Your task to perform on an android device: Check the latest 3D printers on Target. Image 0: 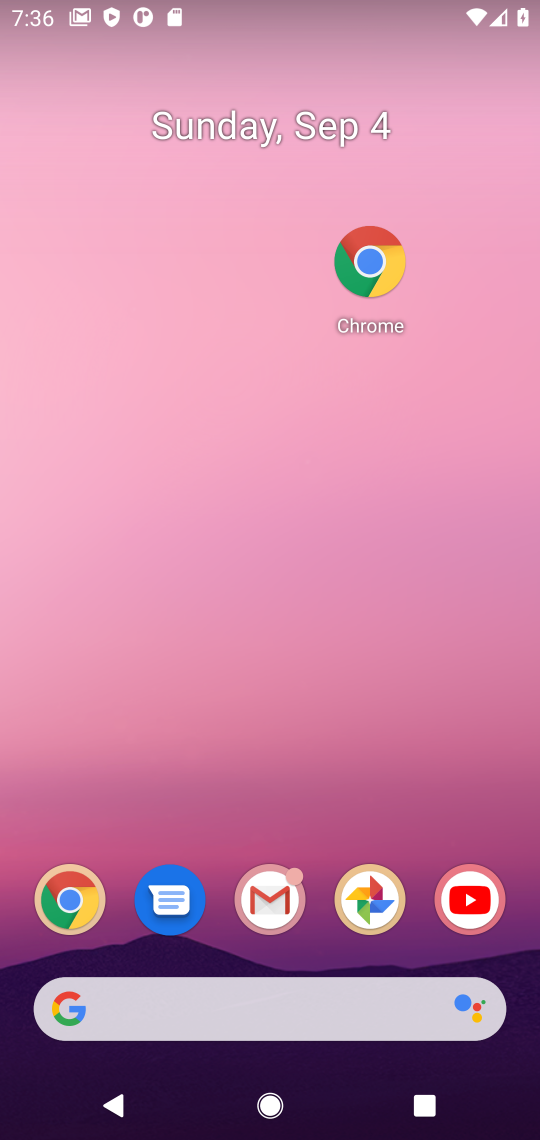
Step 0: drag from (303, 944) to (365, 45)
Your task to perform on an android device: Check the latest 3D printers on Target. Image 1: 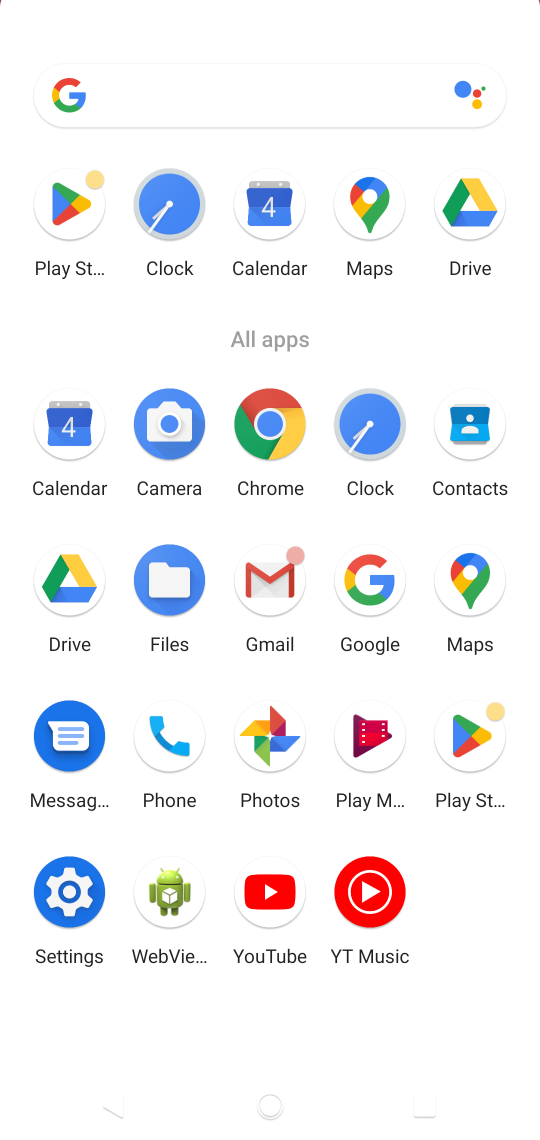
Step 1: click (275, 447)
Your task to perform on an android device: Check the latest 3D printers on Target. Image 2: 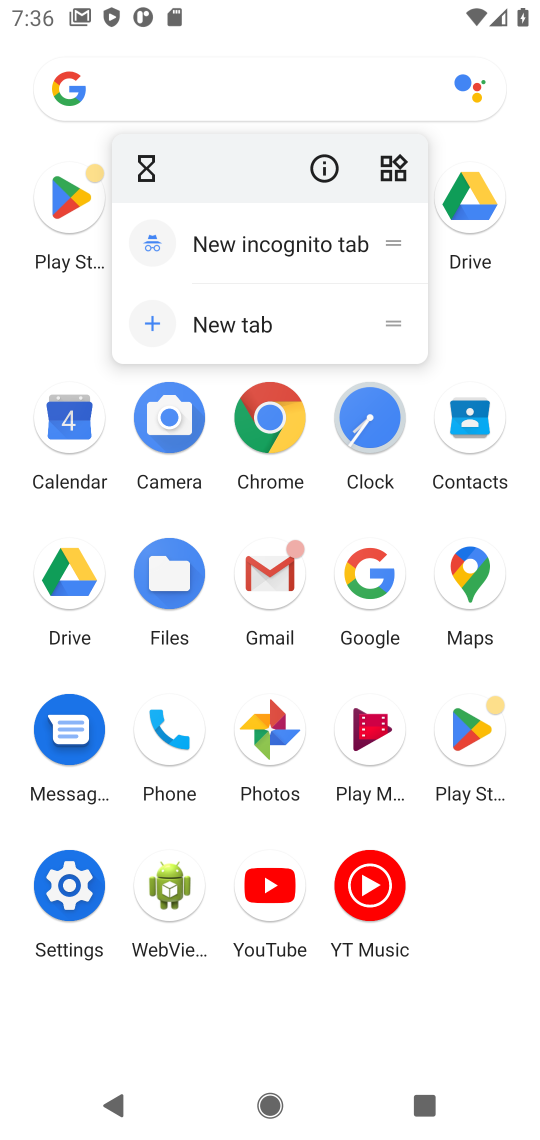
Step 2: click (275, 447)
Your task to perform on an android device: Check the latest 3D printers on Target. Image 3: 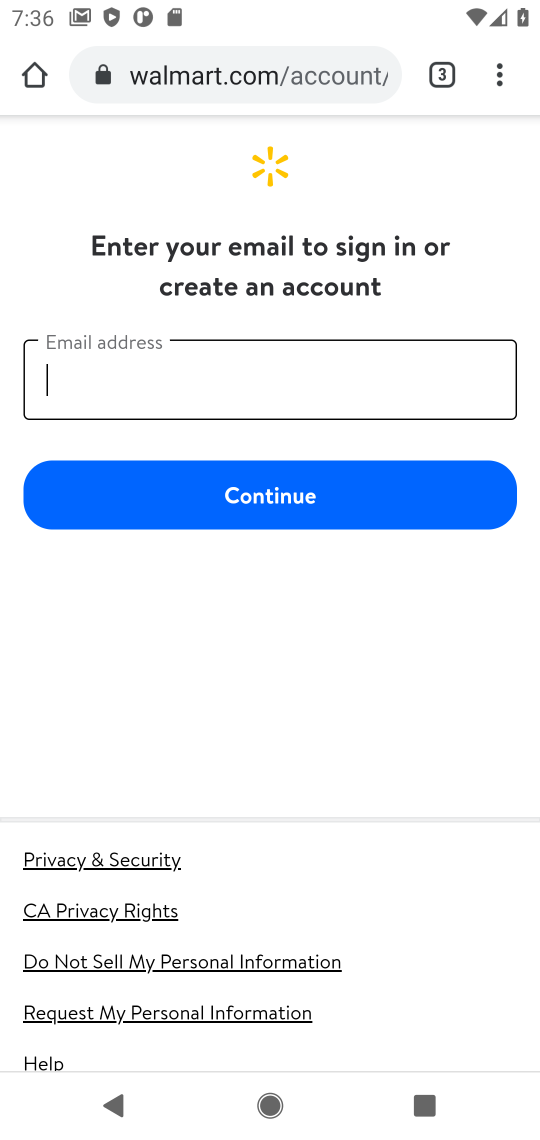
Step 3: click (436, 92)
Your task to perform on an android device: Check the latest 3D printers on Target. Image 4: 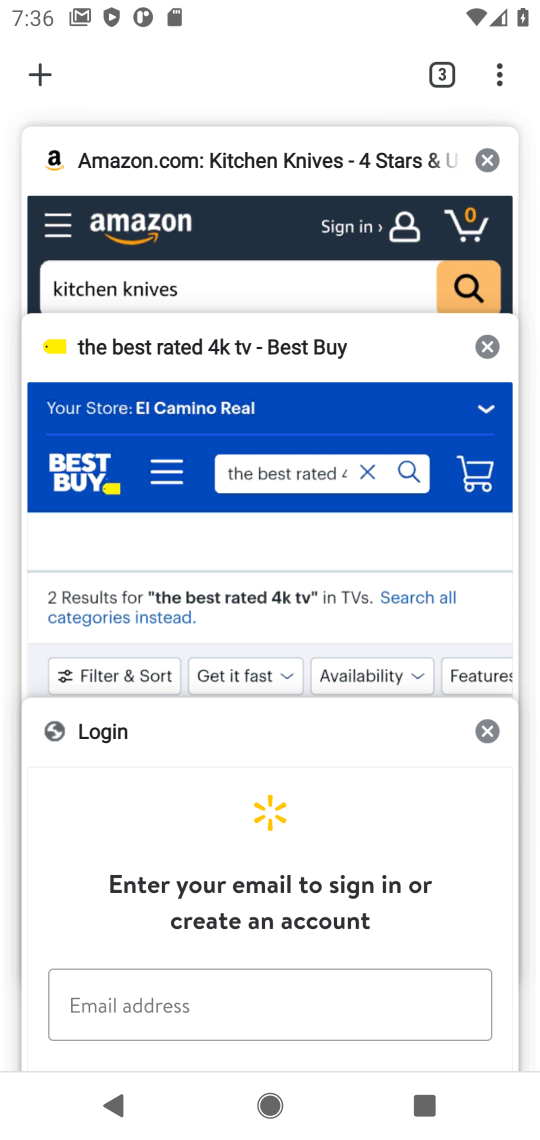
Step 4: click (33, 65)
Your task to perform on an android device: Check the latest 3D printers on Target. Image 5: 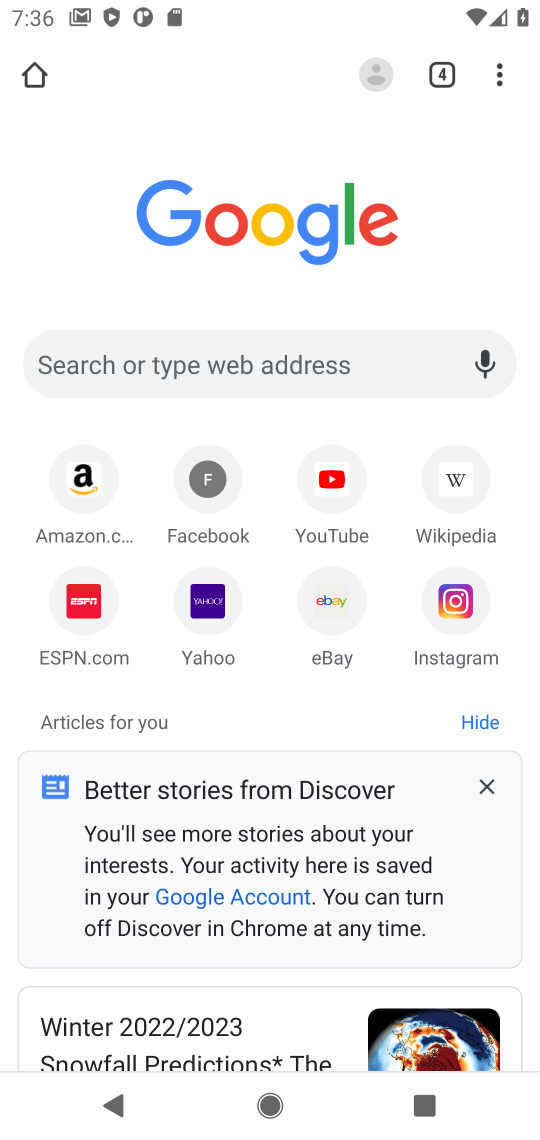
Step 5: click (235, 369)
Your task to perform on an android device: Check the latest 3D printers on Target. Image 6: 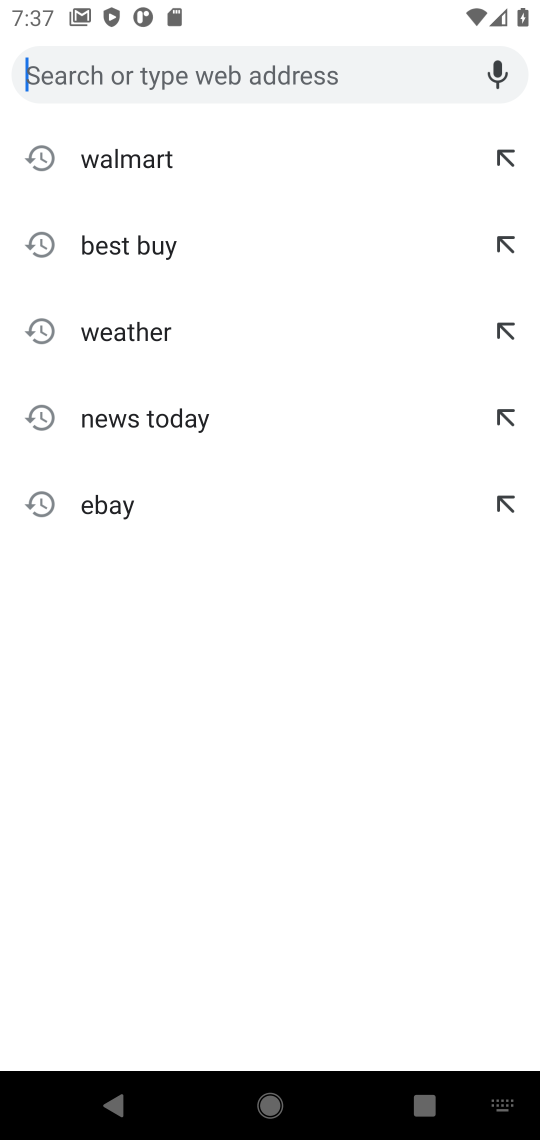
Step 6: type "Target"
Your task to perform on an android device: Check the latest 3D printers on Target. Image 7: 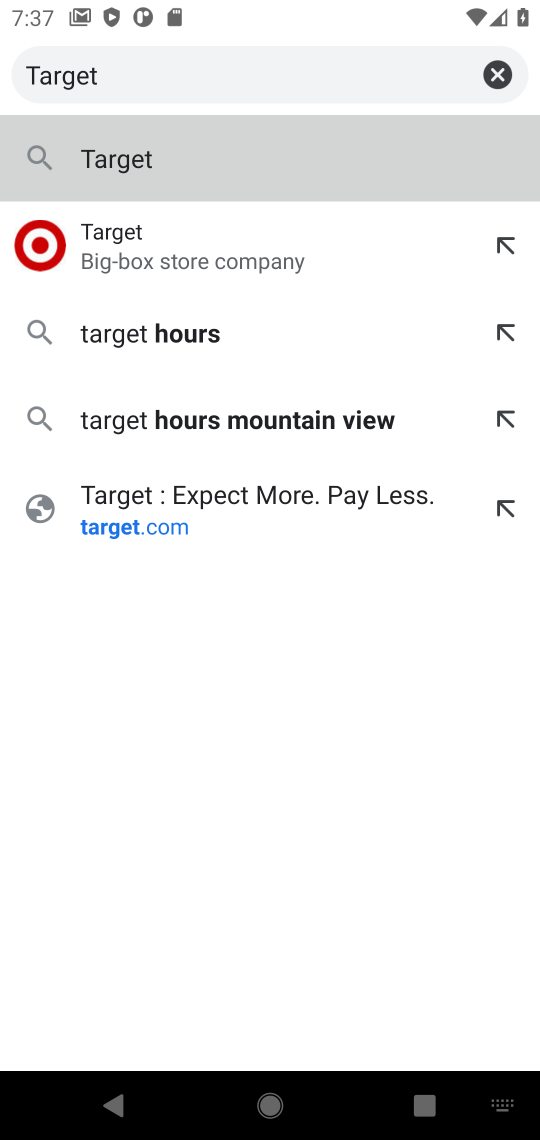
Step 7: click (40, 186)
Your task to perform on an android device: Check the latest 3D printers on Target. Image 8: 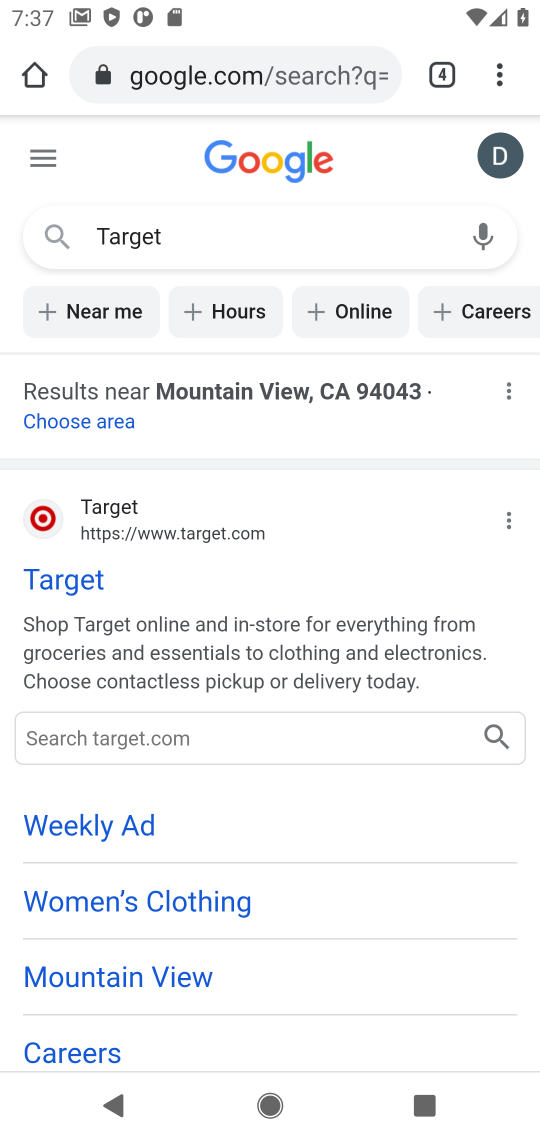
Step 8: click (37, 575)
Your task to perform on an android device: Check the latest 3D printers on Target. Image 9: 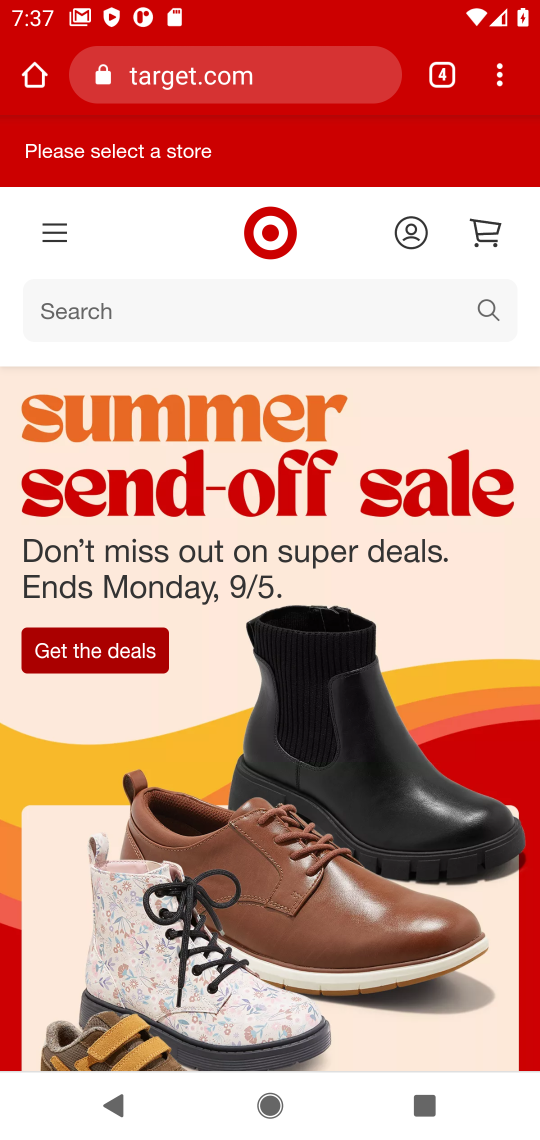
Step 9: click (191, 323)
Your task to perform on an android device: Check the latest 3D printers on Target. Image 10: 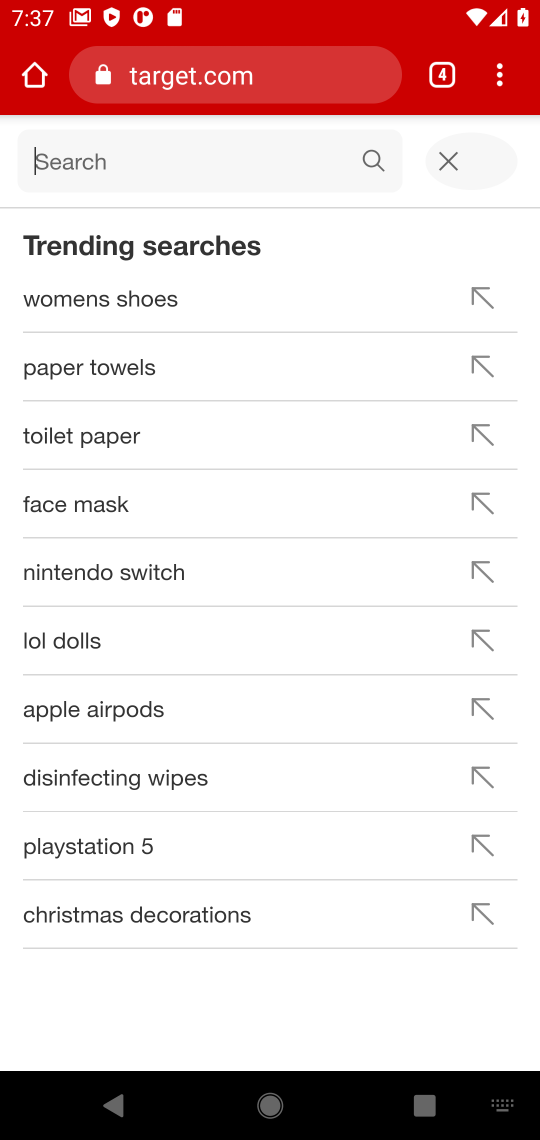
Step 10: type " latest 3D printers"
Your task to perform on an android device: Check the latest 3D printers on Target. Image 11: 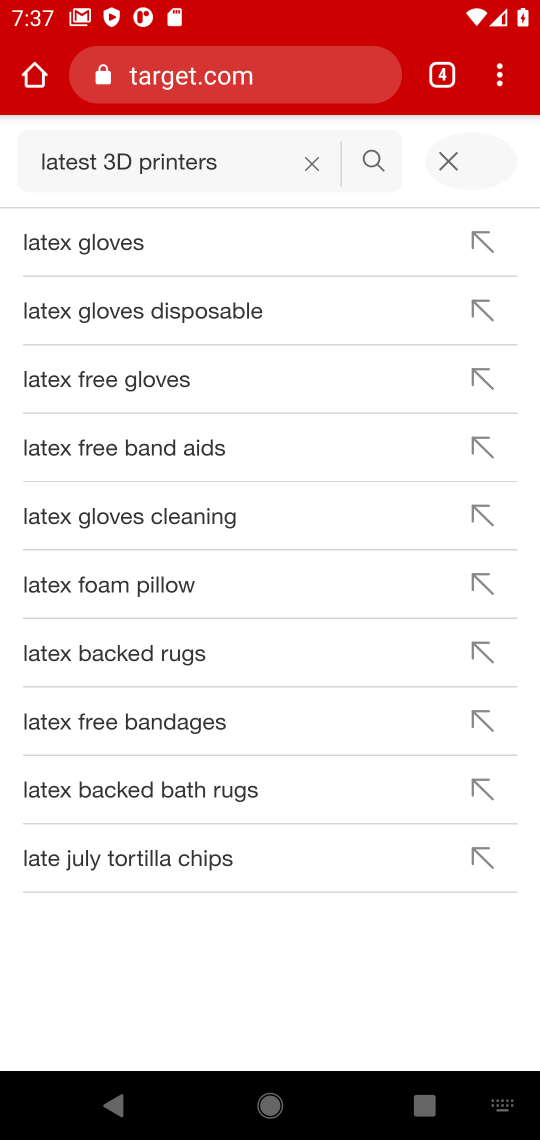
Step 11: click (365, 166)
Your task to perform on an android device: Check the latest 3D printers on Target. Image 12: 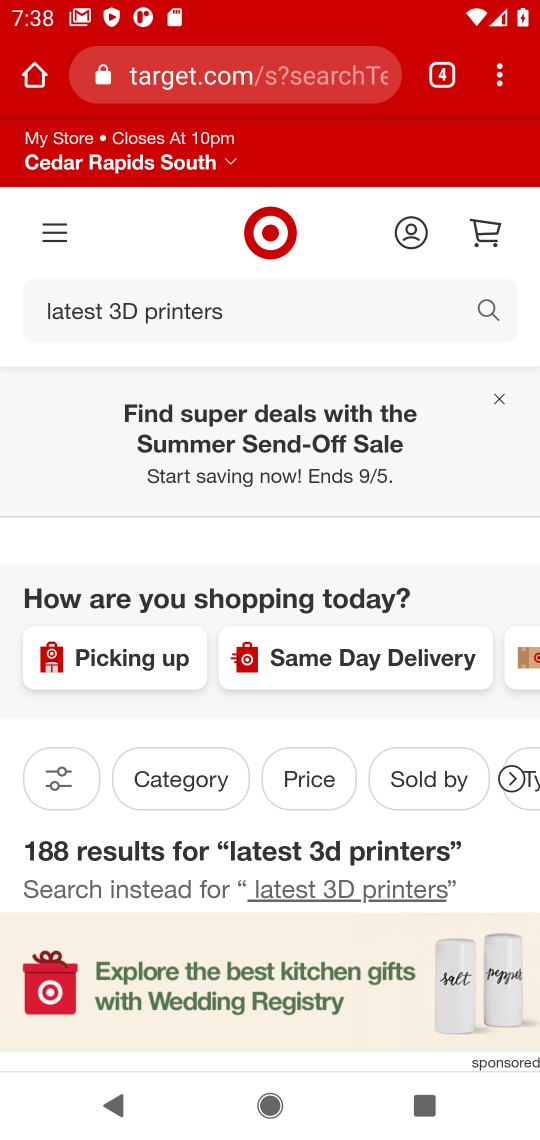
Step 12: task complete